Your task to perform on an android device: Open network settings Image 0: 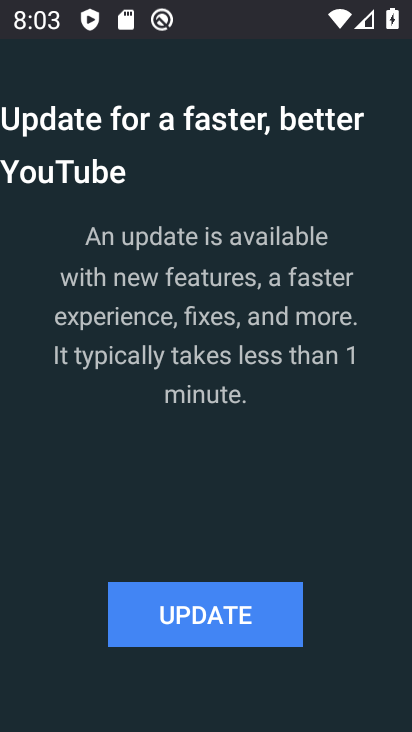
Step 0: press back button
Your task to perform on an android device: Open network settings Image 1: 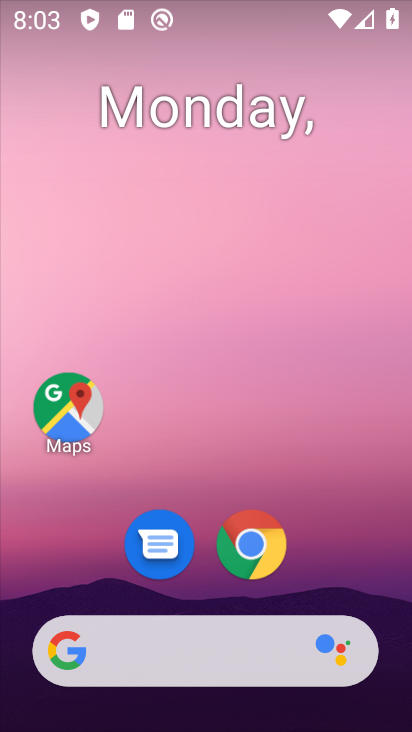
Step 1: drag from (188, 601) to (195, 28)
Your task to perform on an android device: Open network settings Image 2: 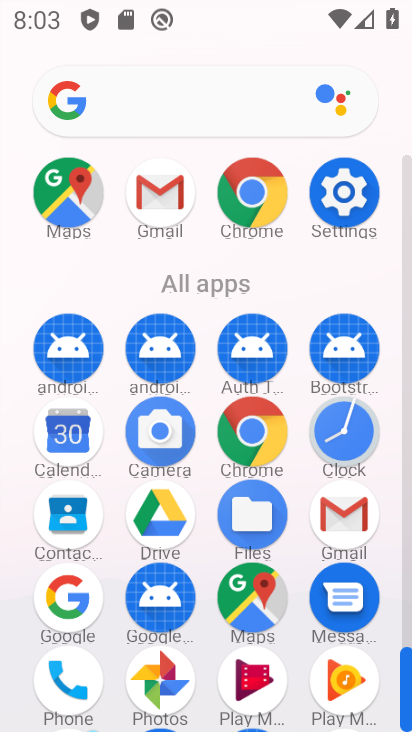
Step 2: click (347, 206)
Your task to perform on an android device: Open network settings Image 3: 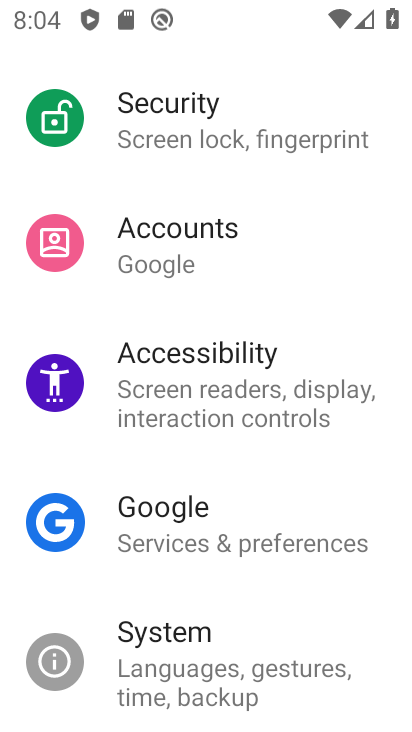
Step 3: drag from (289, 134) to (242, 649)
Your task to perform on an android device: Open network settings Image 4: 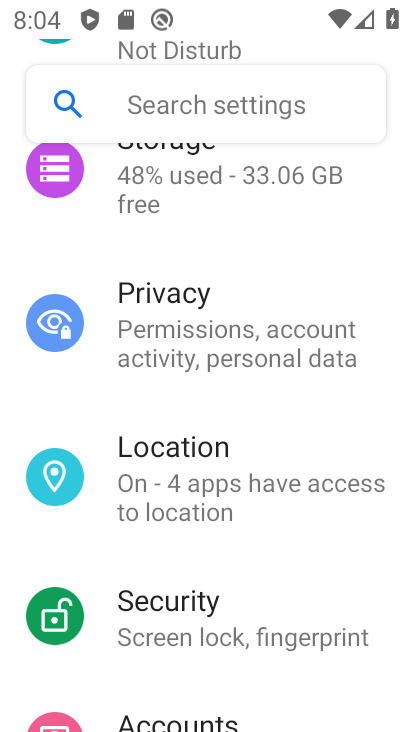
Step 4: drag from (177, 209) to (175, 709)
Your task to perform on an android device: Open network settings Image 5: 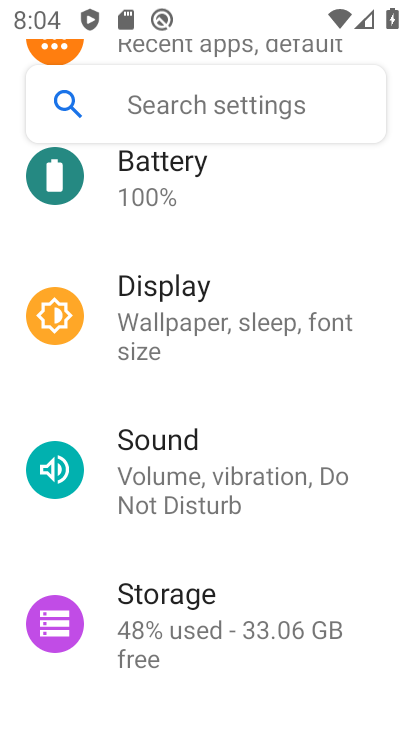
Step 5: drag from (164, 195) to (146, 728)
Your task to perform on an android device: Open network settings Image 6: 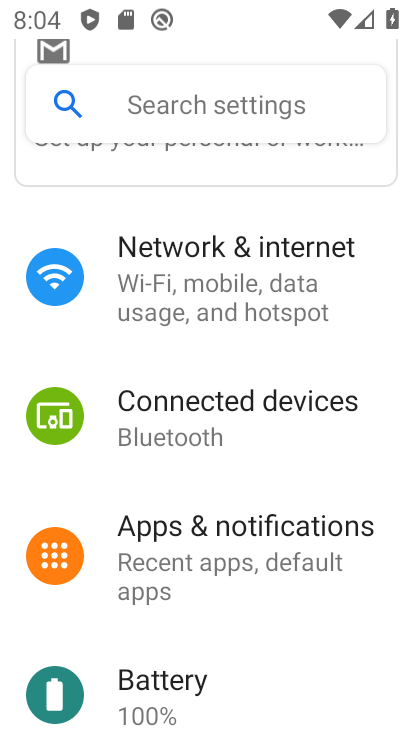
Step 6: click (134, 253)
Your task to perform on an android device: Open network settings Image 7: 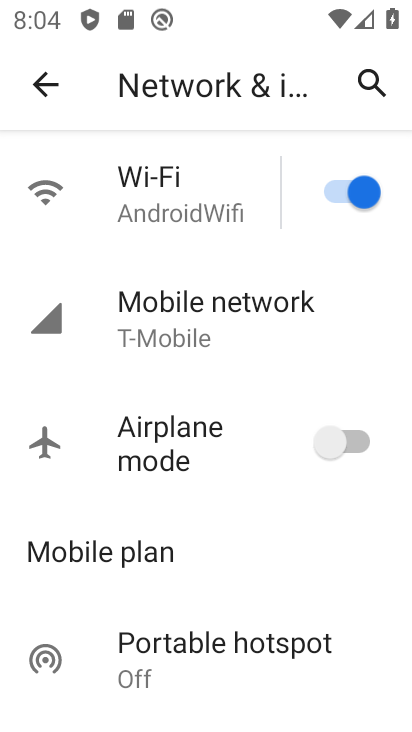
Step 7: click (167, 300)
Your task to perform on an android device: Open network settings Image 8: 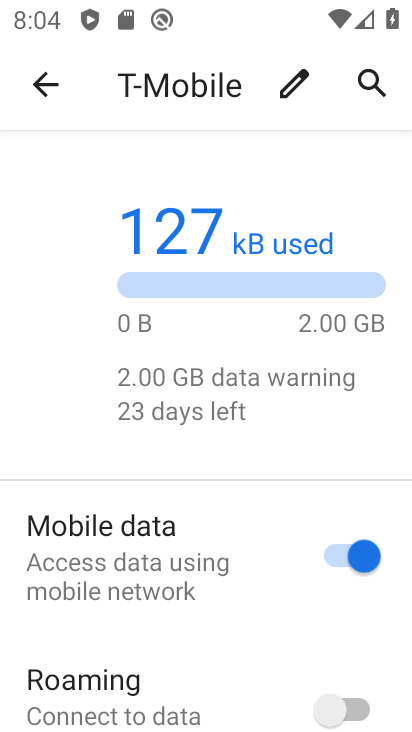
Step 8: task complete